Your task to perform on an android device: How big is a lion? Image 0: 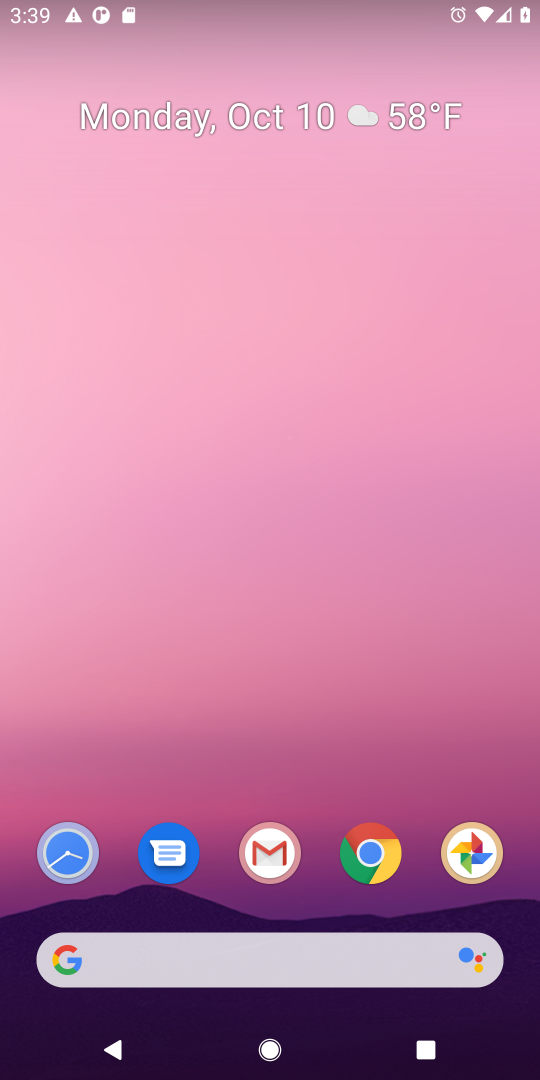
Step 0: drag from (266, 806) to (349, 54)
Your task to perform on an android device: How big is a lion? Image 1: 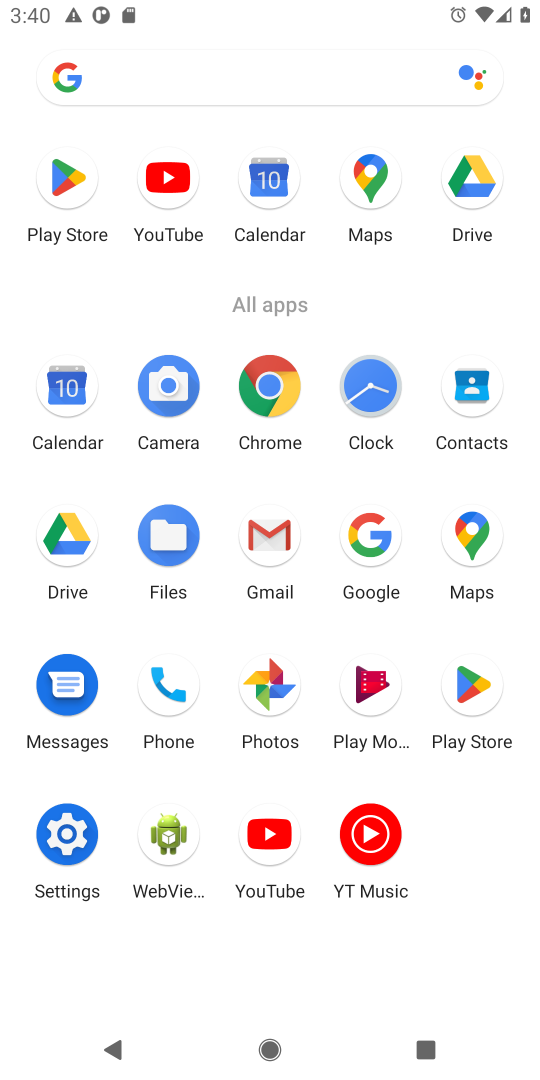
Step 1: click (275, 384)
Your task to perform on an android device: How big is a lion? Image 2: 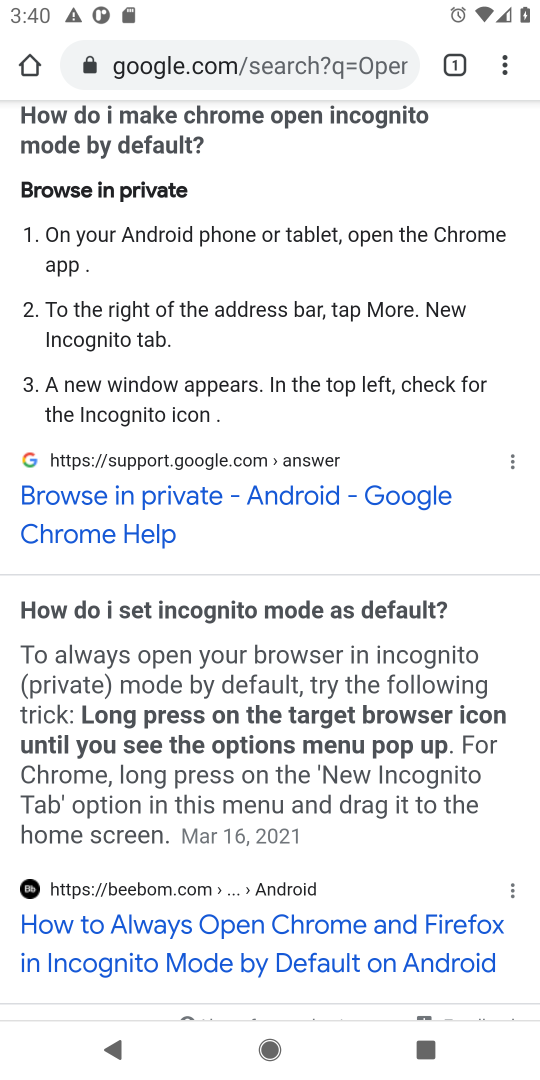
Step 2: click (246, 66)
Your task to perform on an android device: How big is a lion? Image 3: 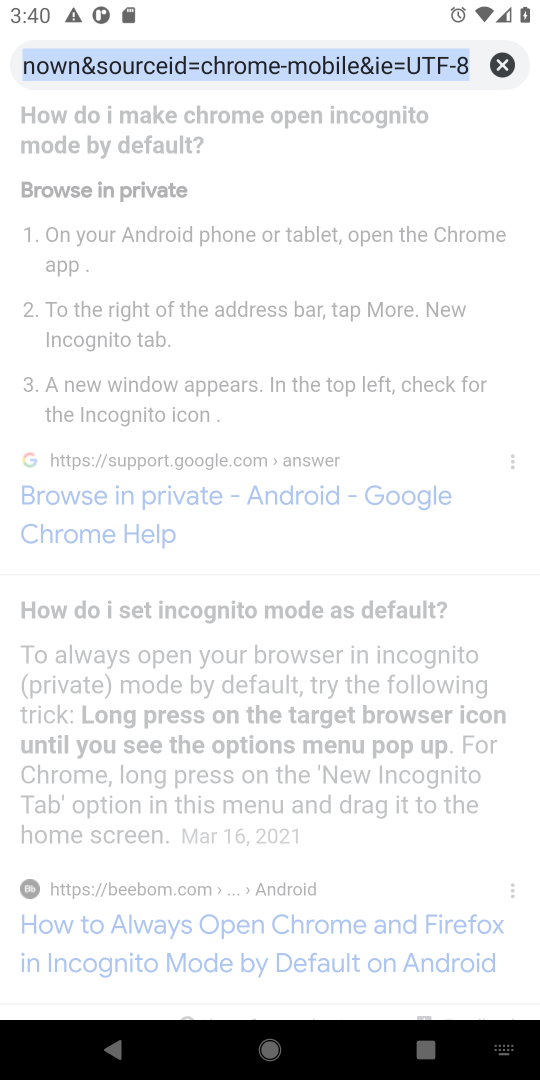
Step 3: click (504, 61)
Your task to perform on an android device: How big is a lion? Image 4: 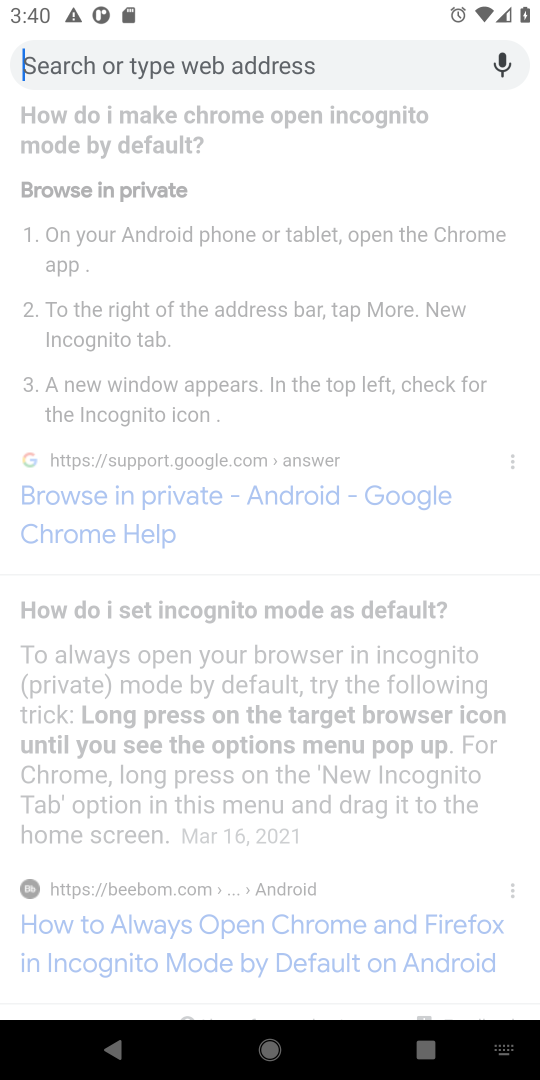
Step 4: type "How big is a lion?"
Your task to perform on an android device: How big is a lion? Image 5: 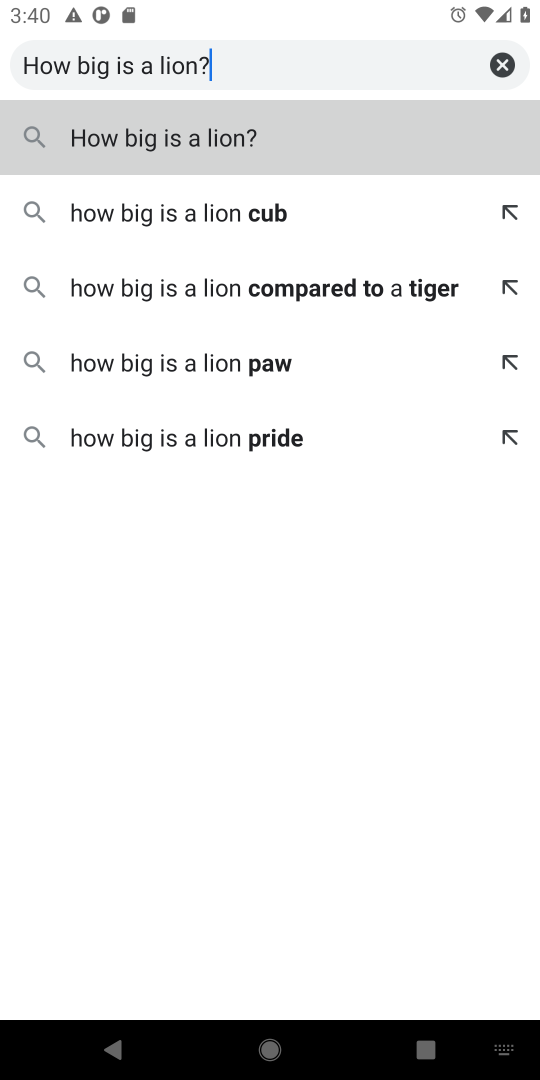
Step 5: click (163, 136)
Your task to perform on an android device: How big is a lion? Image 6: 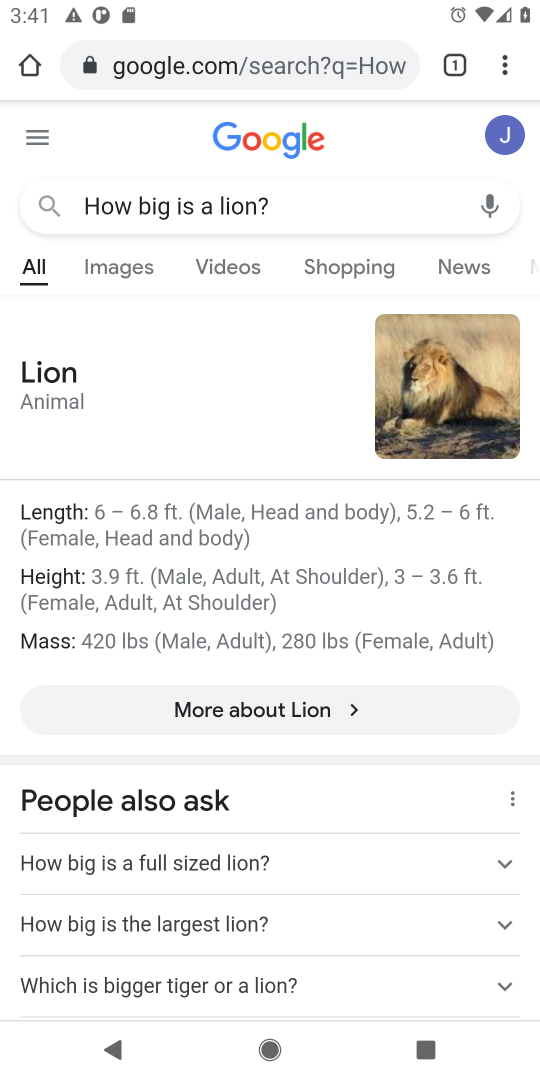
Step 6: task complete